Your task to perform on an android device: Open notification settings Image 0: 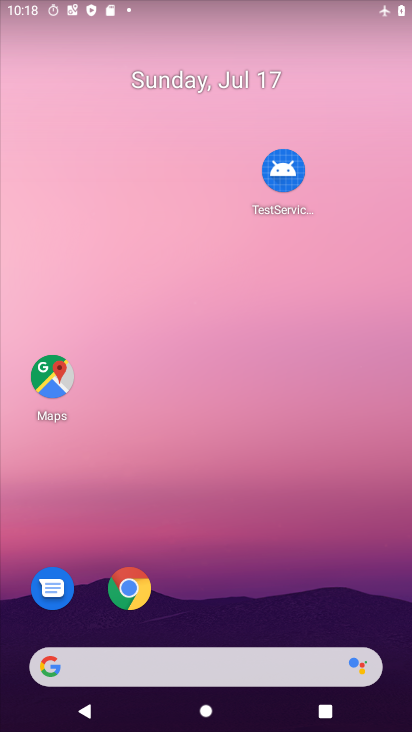
Step 0: drag from (269, 659) to (344, 6)
Your task to perform on an android device: Open notification settings Image 1: 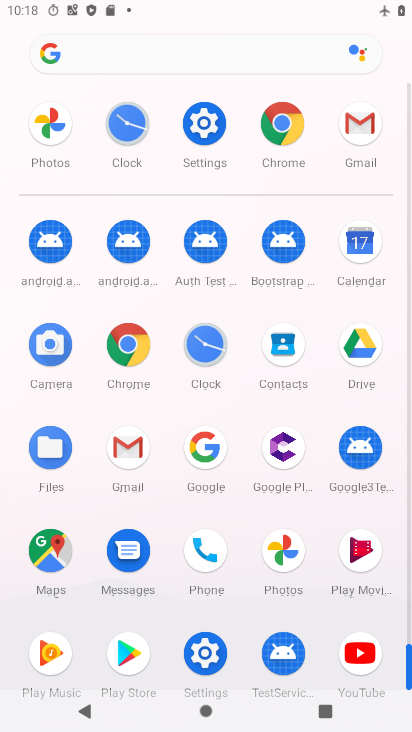
Step 1: click (207, 134)
Your task to perform on an android device: Open notification settings Image 2: 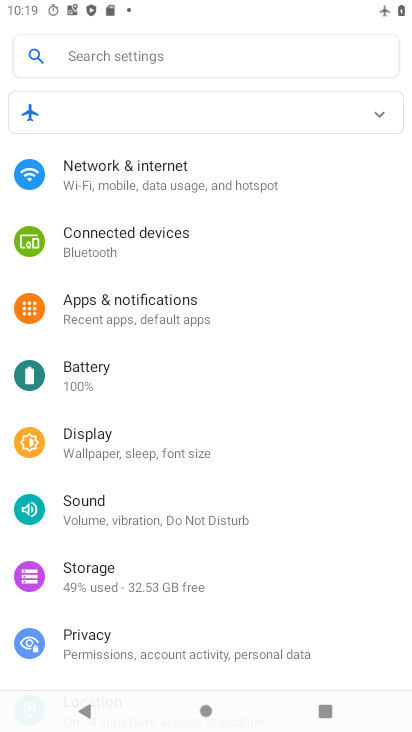
Step 2: click (140, 300)
Your task to perform on an android device: Open notification settings Image 3: 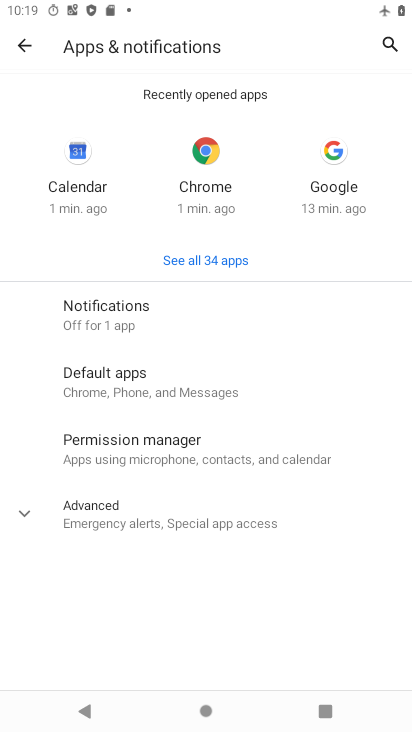
Step 3: click (162, 305)
Your task to perform on an android device: Open notification settings Image 4: 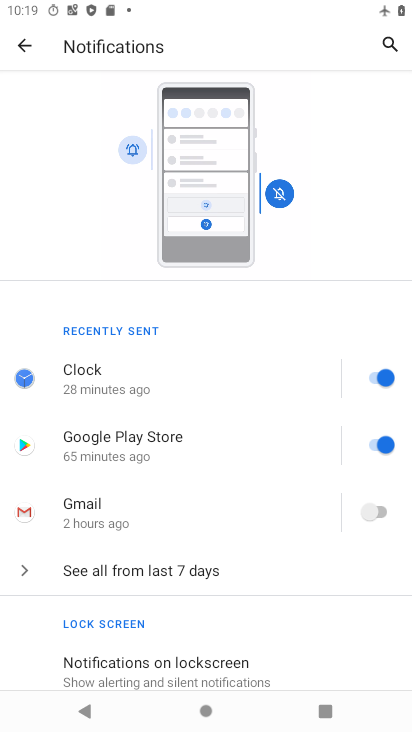
Step 4: task complete